Your task to perform on an android device: Set the phone to "Do not disturb". Image 0: 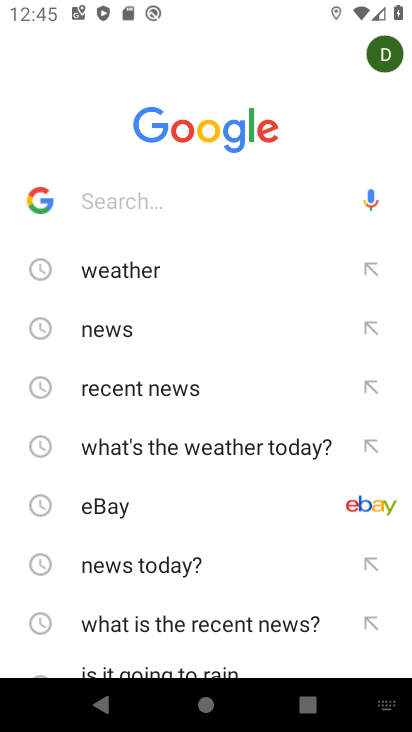
Step 0: press home button
Your task to perform on an android device: Set the phone to "Do not disturb". Image 1: 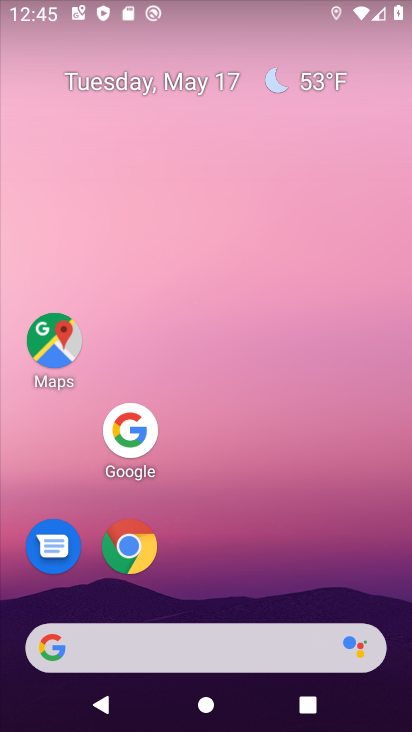
Step 1: drag from (286, 118) to (287, 53)
Your task to perform on an android device: Set the phone to "Do not disturb". Image 2: 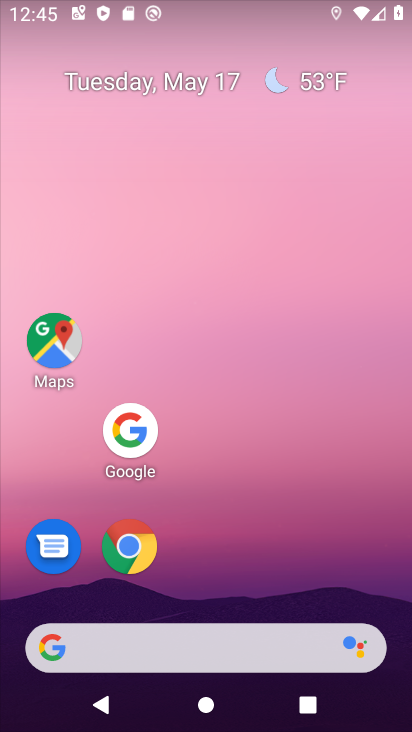
Step 2: drag from (238, 578) to (283, 93)
Your task to perform on an android device: Set the phone to "Do not disturb". Image 3: 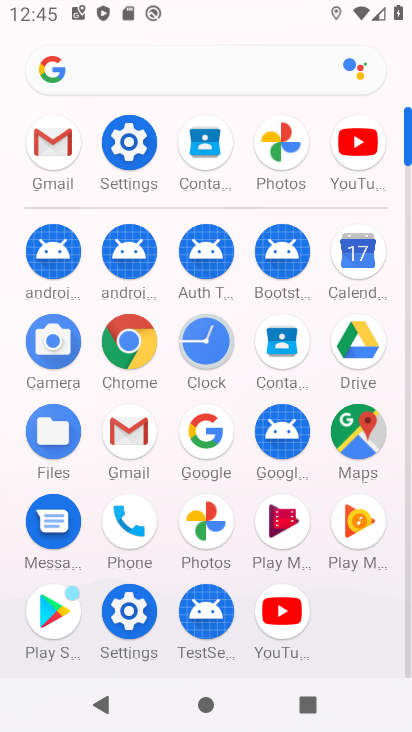
Step 3: click (131, 136)
Your task to perform on an android device: Set the phone to "Do not disturb". Image 4: 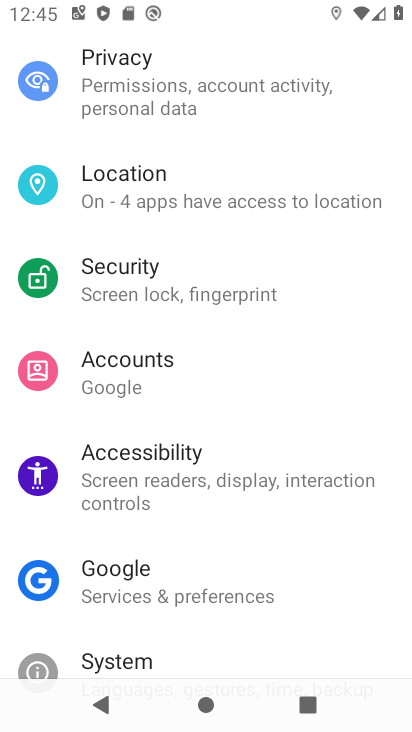
Step 4: drag from (196, 491) to (193, 391)
Your task to perform on an android device: Set the phone to "Do not disturb". Image 5: 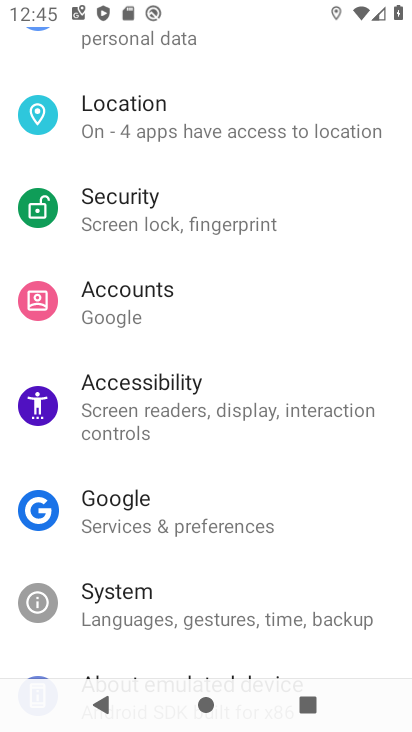
Step 5: drag from (206, 275) to (237, 599)
Your task to perform on an android device: Set the phone to "Do not disturb". Image 6: 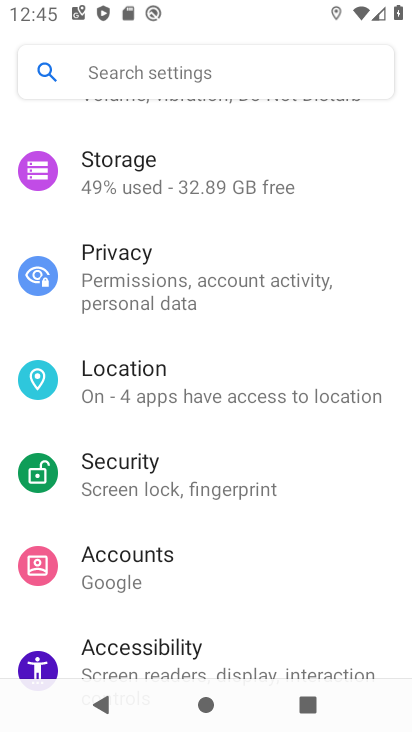
Step 6: drag from (212, 179) to (220, 531)
Your task to perform on an android device: Set the phone to "Do not disturb". Image 7: 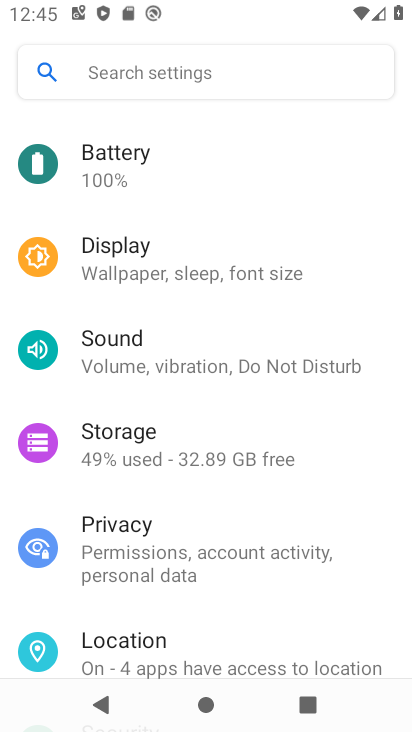
Step 7: click (186, 349)
Your task to perform on an android device: Set the phone to "Do not disturb". Image 8: 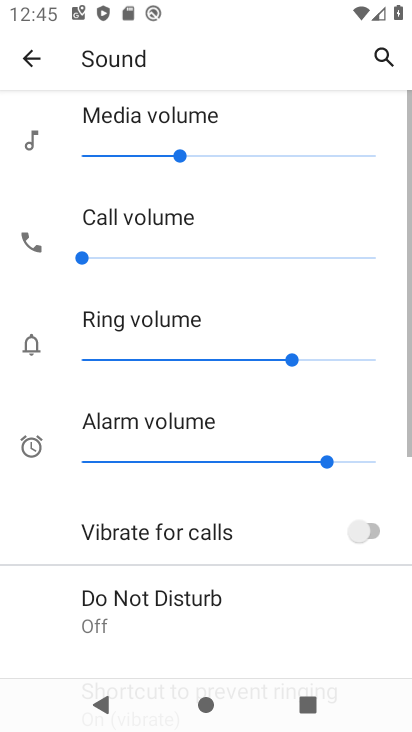
Step 8: drag from (255, 588) to (241, 90)
Your task to perform on an android device: Set the phone to "Do not disturb". Image 9: 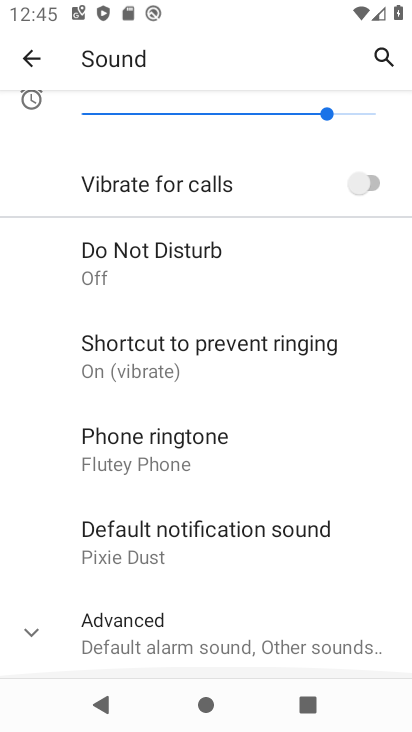
Step 9: click (166, 242)
Your task to perform on an android device: Set the phone to "Do not disturb". Image 10: 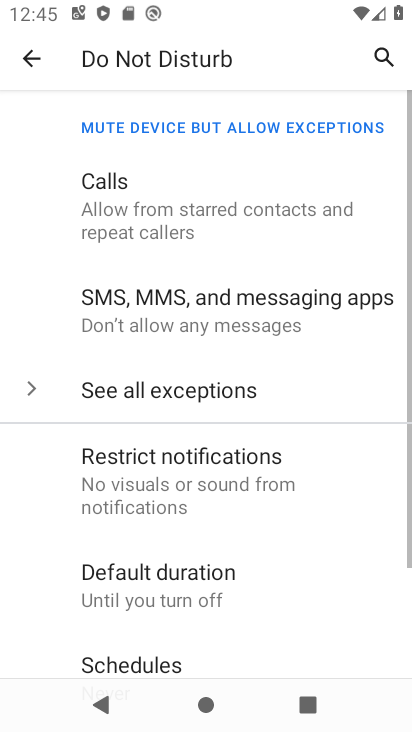
Step 10: drag from (193, 586) to (254, 25)
Your task to perform on an android device: Set the phone to "Do not disturb". Image 11: 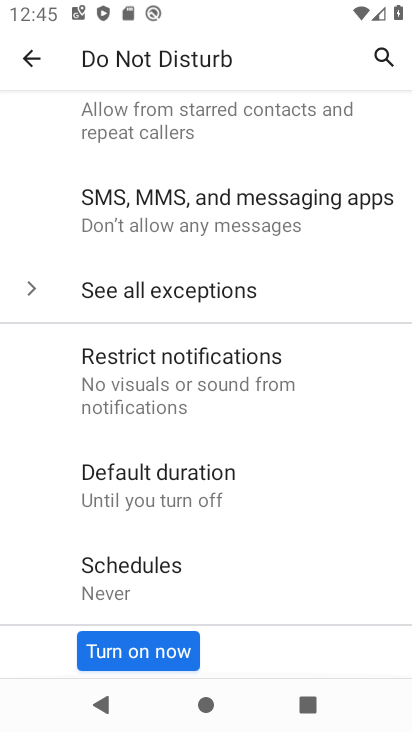
Step 11: click (133, 652)
Your task to perform on an android device: Set the phone to "Do not disturb". Image 12: 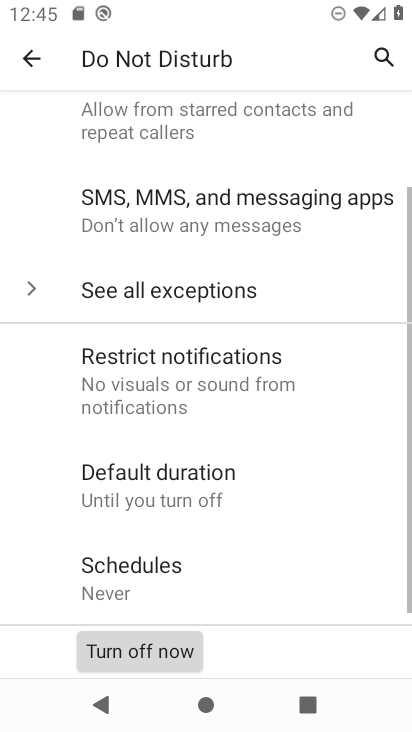
Step 12: task complete